Your task to perform on an android device: Go to privacy settings Image 0: 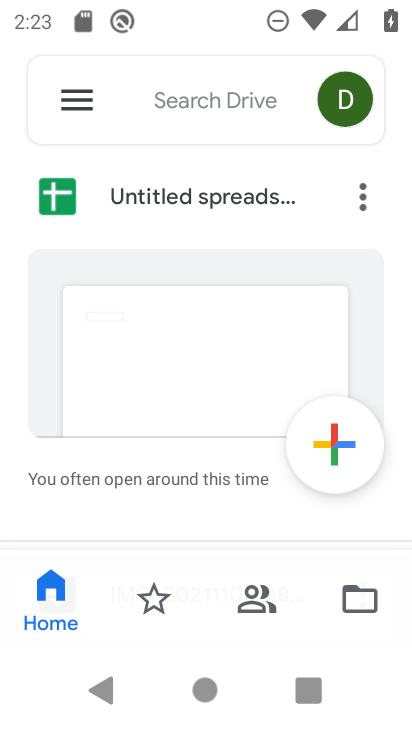
Step 0: press home button
Your task to perform on an android device: Go to privacy settings Image 1: 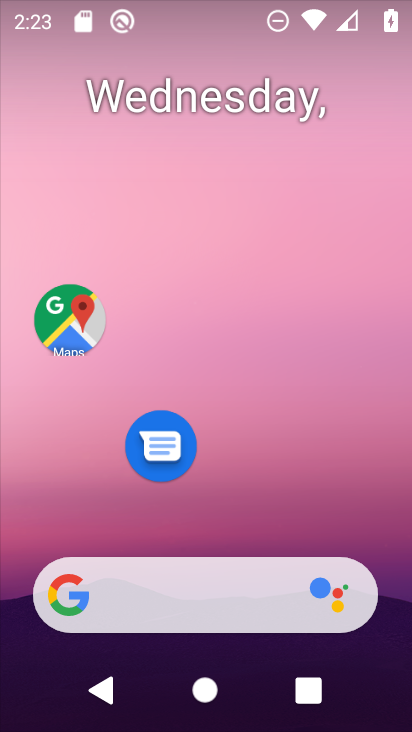
Step 1: drag from (239, 526) to (208, 201)
Your task to perform on an android device: Go to privacy settings Image 2: 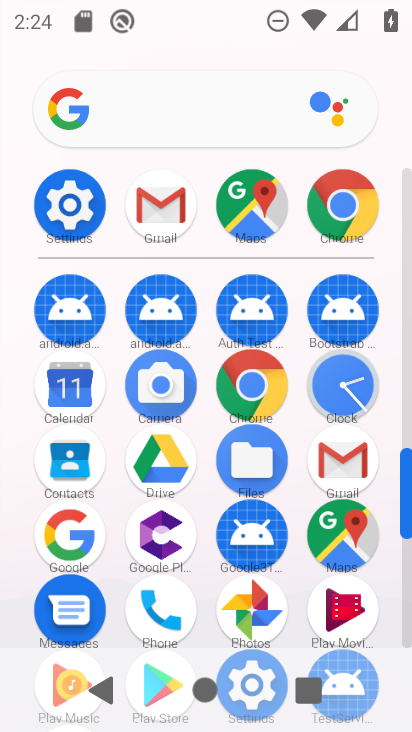
Step 2: click (93, 205)
Your task to perform on an android device: Go to privacy settings Image 3: 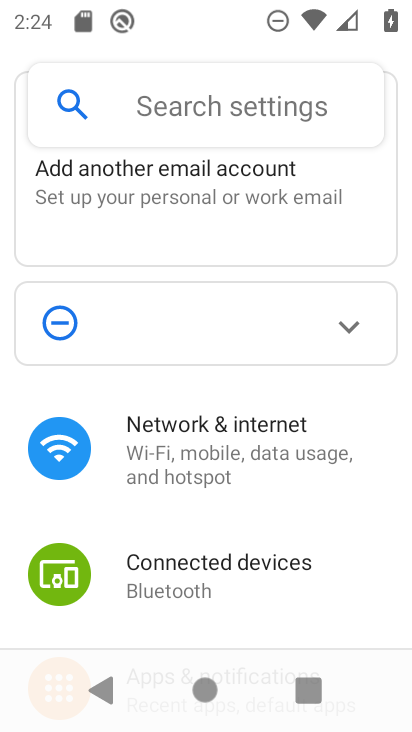
Step 3: drag from (115, 411) to (161, 11)
Your task to perform on an android device: Go to privacy settings Image 4: 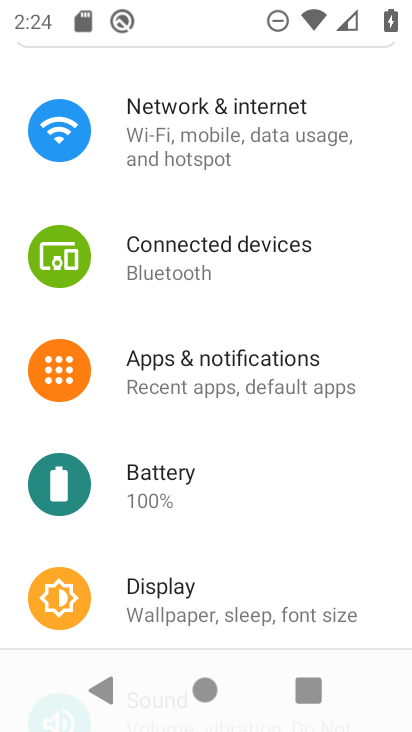
Step 4: drag from (138, 526) to (191, 169)
Your task to perform on an android device: Go to privacy settings Image 5: 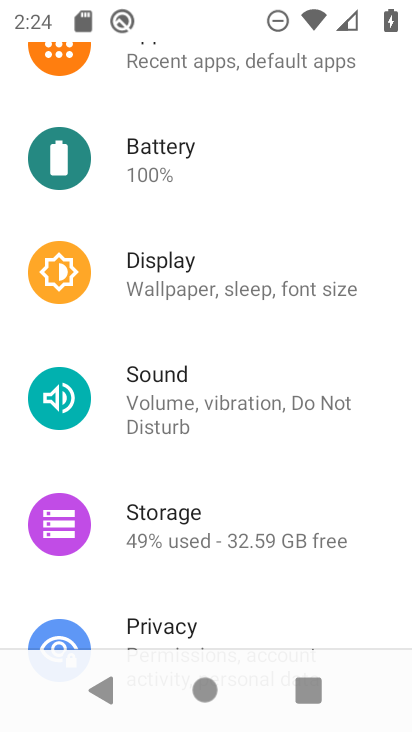
Step 5: drag from (192, 582) to (123, 24)
Your task to perform on an android device: Go to privacy settings Image 6: 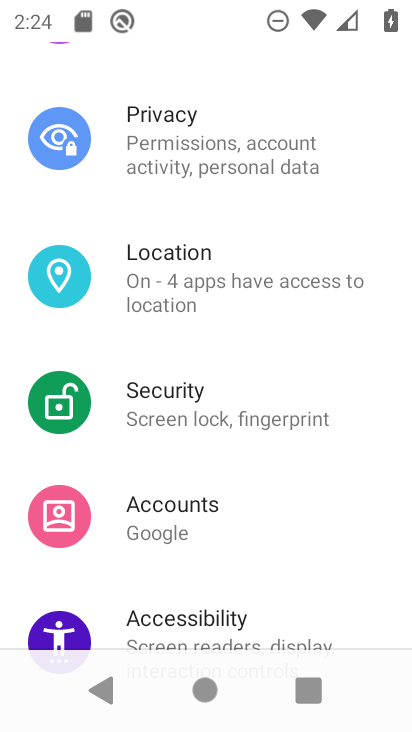
Step 6: click (164, 144)
Your task to perform on an android device: Go to privacy settings Image 7: 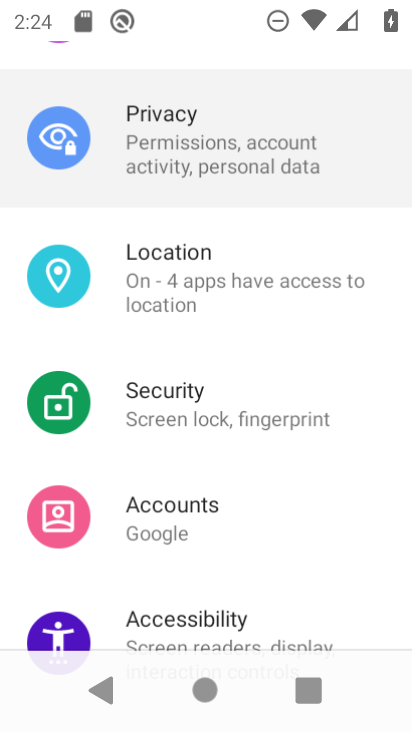
Step 7: task complete